Your task to perform on an android device: turn pop-ups on in chrome Image 0: 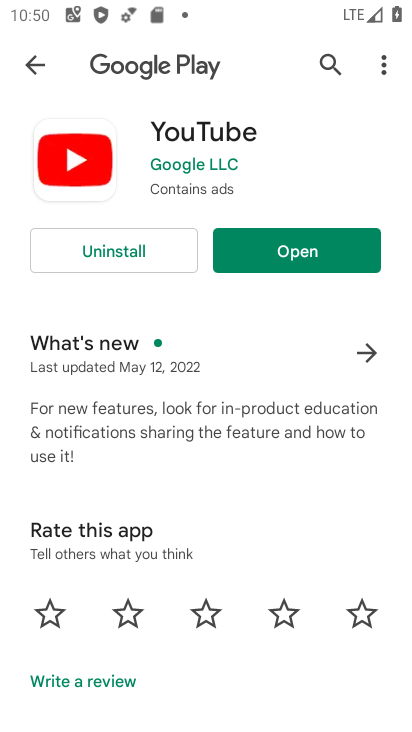
Step 0: press home button
Your task to perform on an android device: turn pop-ups on in chrome Image 1: 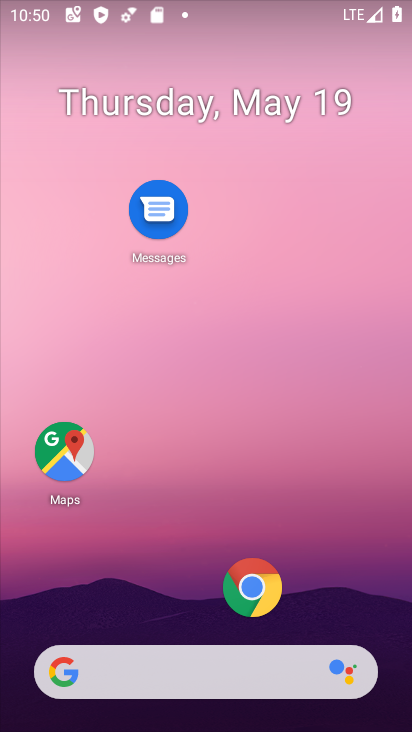
Step 1: click (251, 598)
Your task to perform on an android device: turn pop-ups on in chrome Image 2: 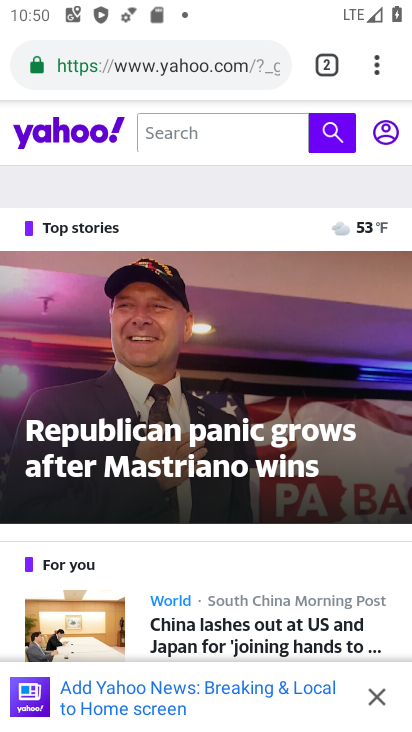
Step 2: click (380, 62)
Your task to perform on an android device: turn pop-ups on in chrome Image 3: 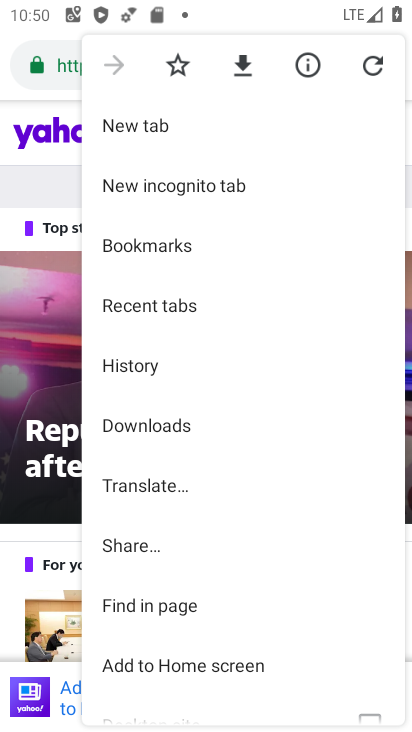
Step 3: drag from (175, 591) to (257, 168)
Your task to perform on an android device: turn pop-ups on in chrome Image 4: 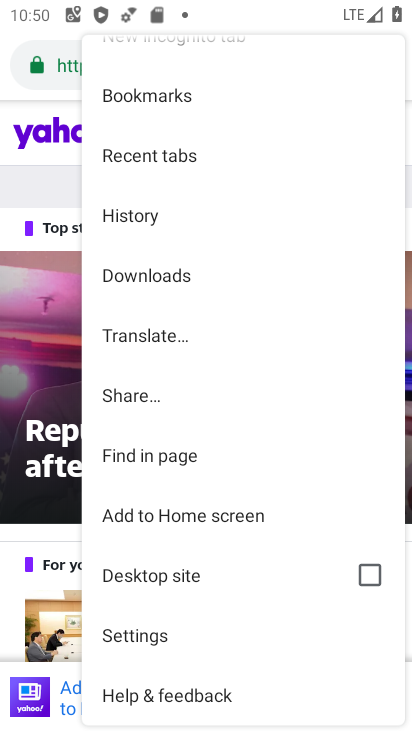
Step 4: click (176, 615)
Your task to perform on an android device: turn pop-ups on in chrome Image 5: 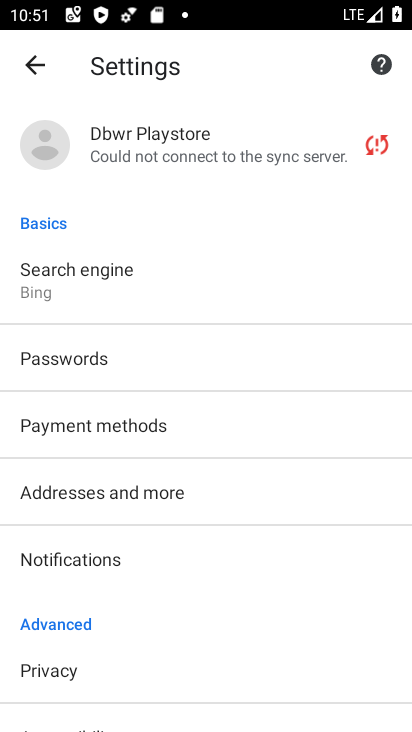
Step 5: drag from (176, 615) to (236, 201)
Your task to perform on an android device: turn pop-ups on in chrome Image 6: 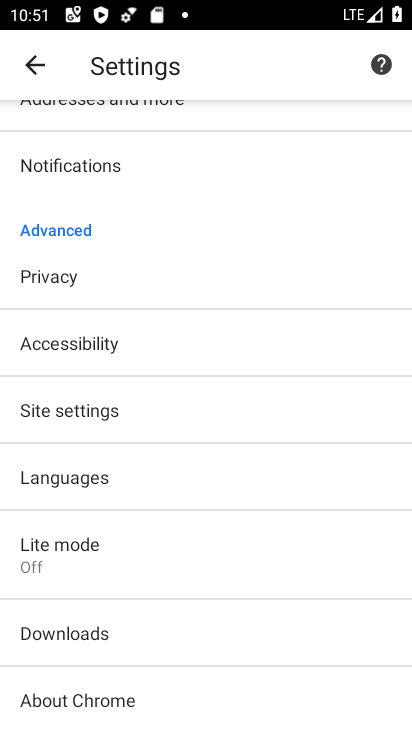
Step 6: click (81, 412)
Your task to perform on an android device: turn pop-ups on in chrome Image 7: 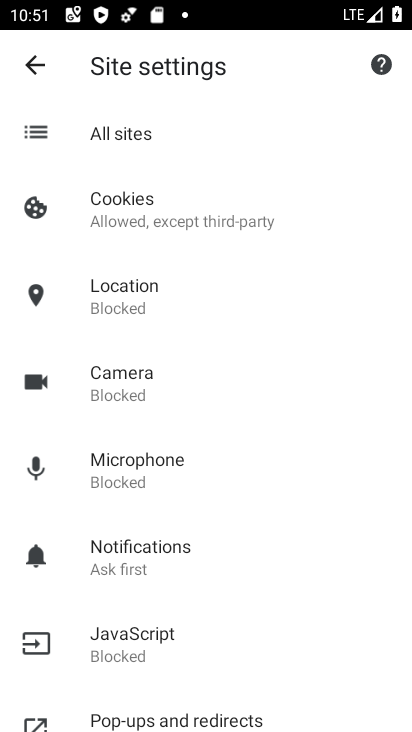
Step 7: drag from (131, 562) to (175, 276)
Your task to perform on an android device: turn pop-ups on in chrome Image 8: 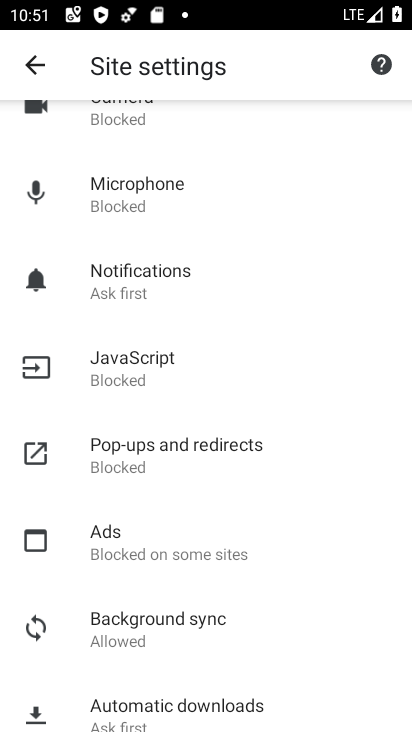
Step 8: click (152, 661)
Your task to perform on an android device: turn pop-ups on in chrome Image 9: 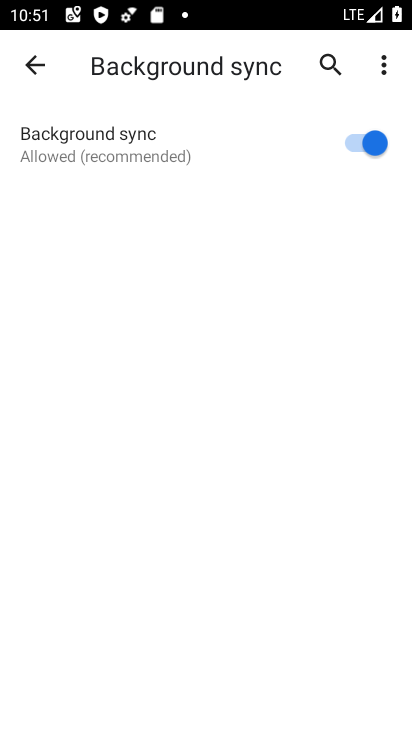
Step 9: click (28, 65)
Your task to perform on an android device: turn pop-ups on in chrome Image 10: 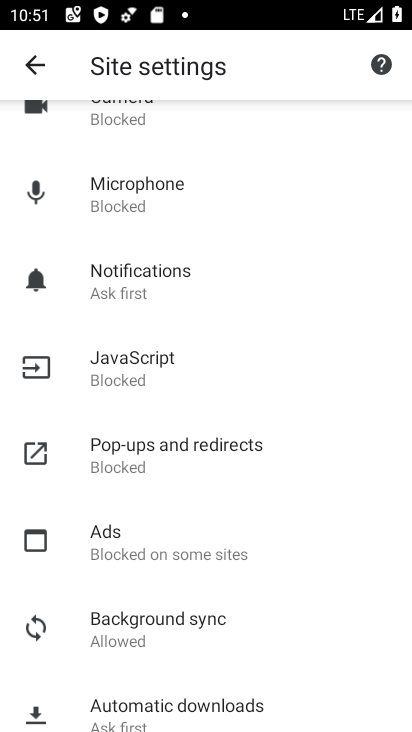
Step 10: click (121, 450)
Your task to perform on an android device: turn pop-ups on in chrome Image 11: 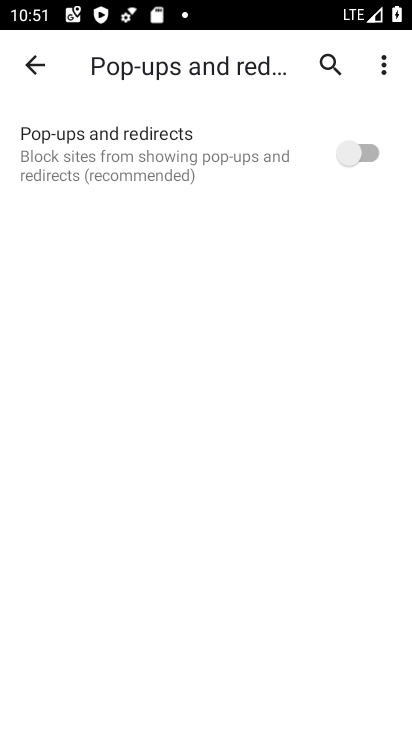
Step 11: click (368, 161)
Your task to perform on an android device: turn pop-ups on in chrome Image 12: 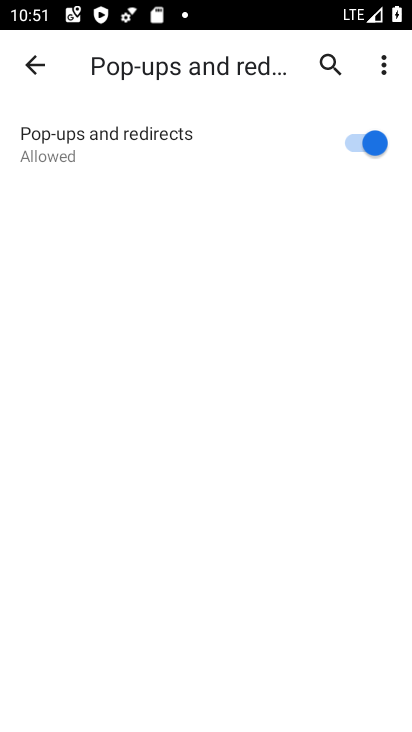
Step 12: task complete